Your task to perform on an android device: Open privacy settings Image 0: 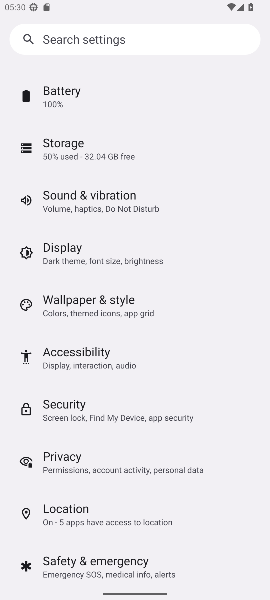
Step 0: click (104, 456)
Your task to perform on an android device: Open privacy settings Image 1: 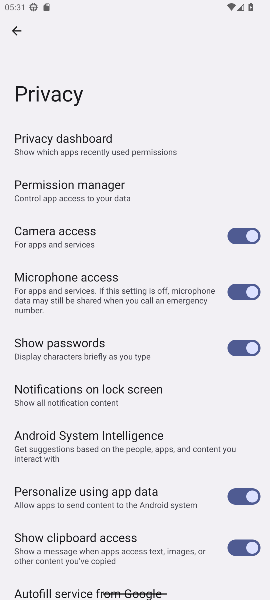
Step 1: task complete